Your task to perform on an android device: open app "Grab" (install if not already installed), go to login, and select forgot password Image 0: 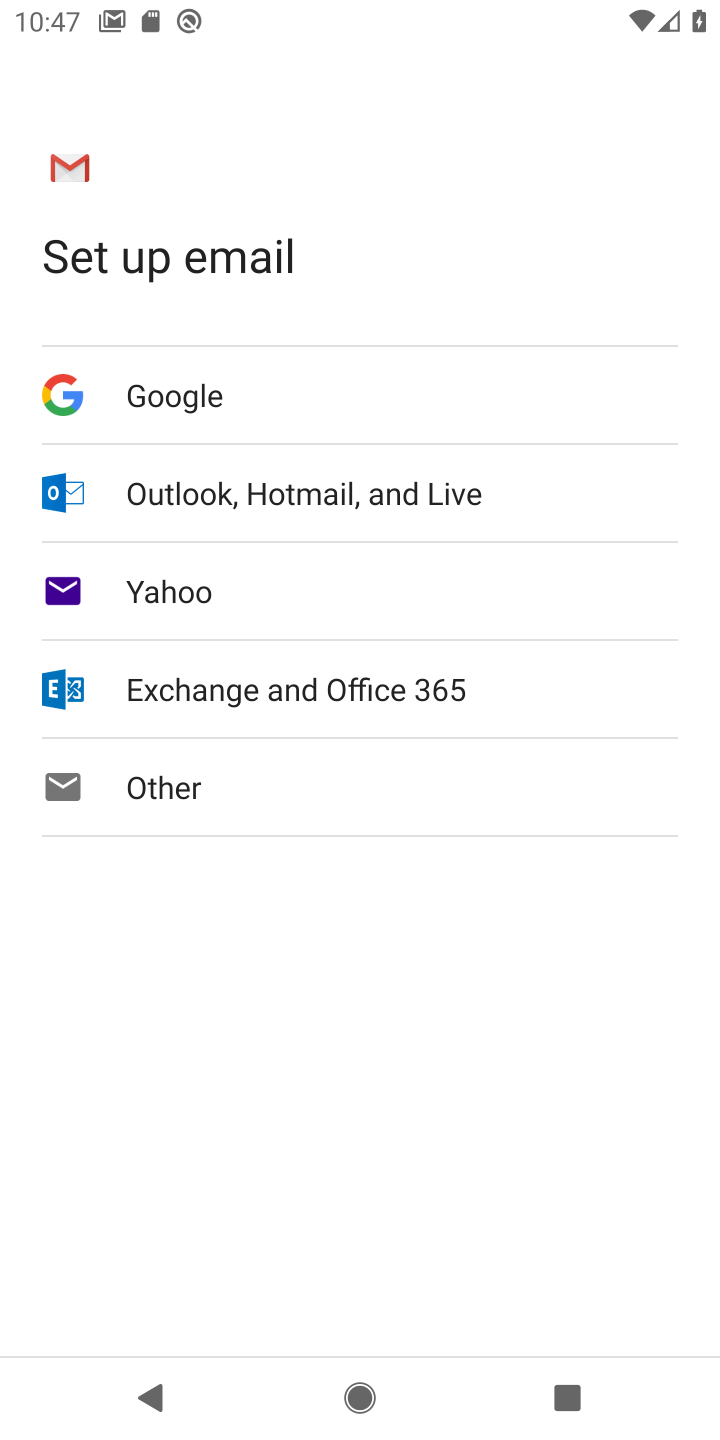
Step 0: press home button
Your task to perform on an android device: open app "Grab" (install if not already installed), go to login, and select forgot password Image 1: 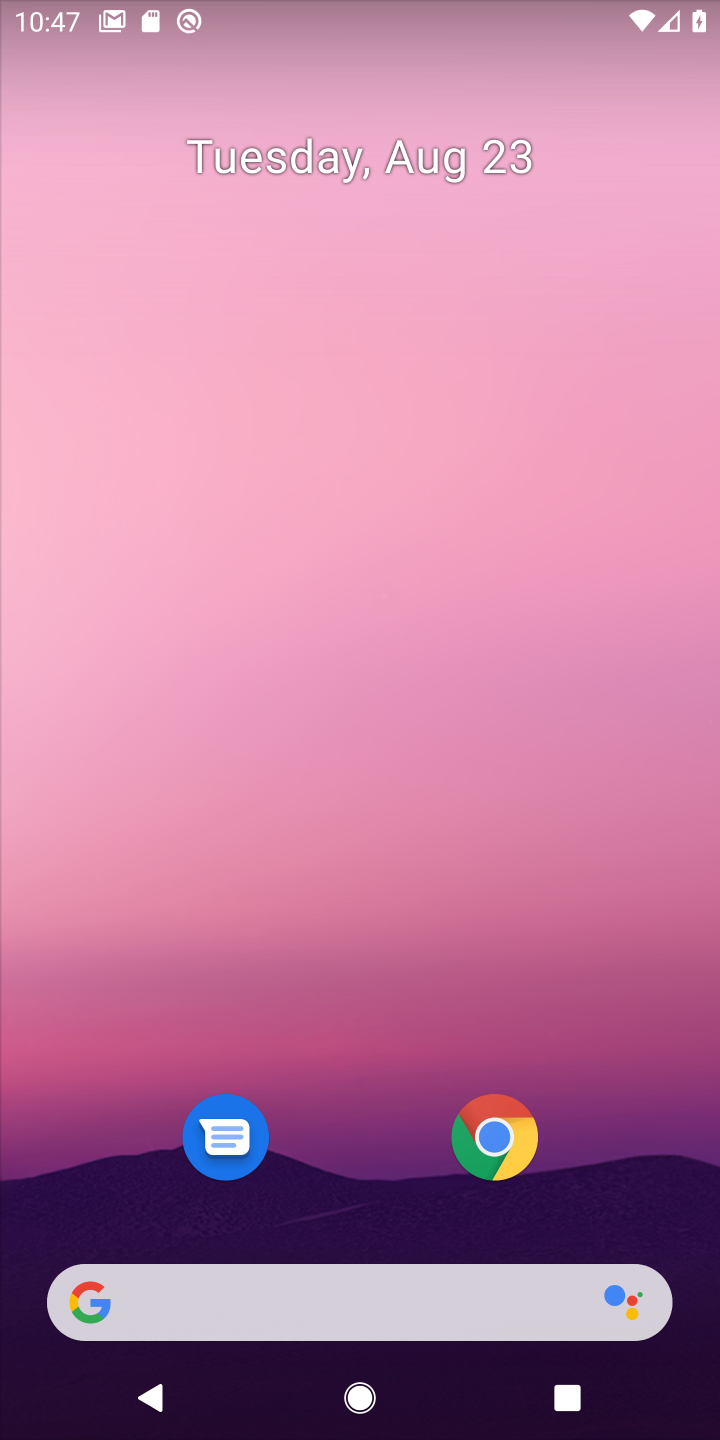
Step 1: drag from (317, 1051) to (339, 9)
Your task to perform on an android device: open app "Grab" (install if not already installed), go to login, and select forgot password Image 2: 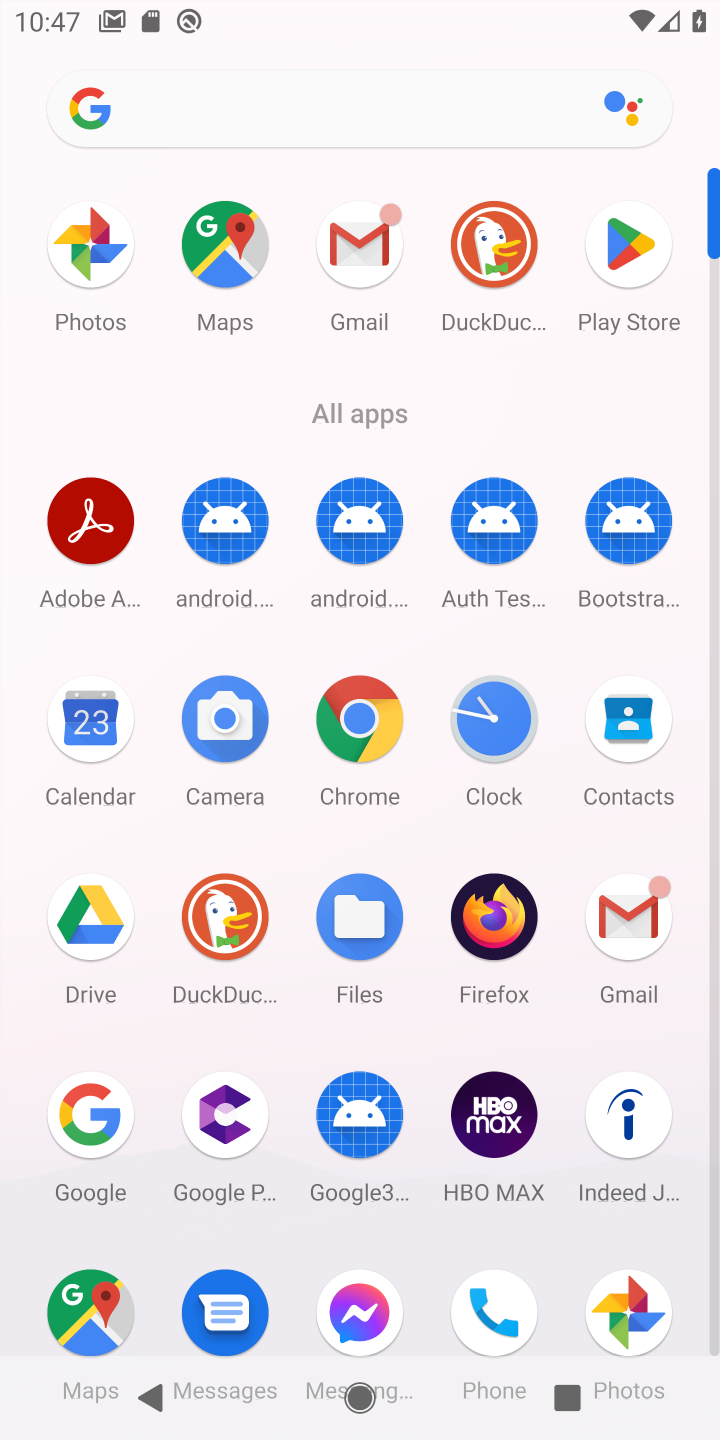
Step 2: click (643, 246)
Your task to perform on an android device: open app "Grab" (install if not already installed), go to login, and select forgot password Image 3: 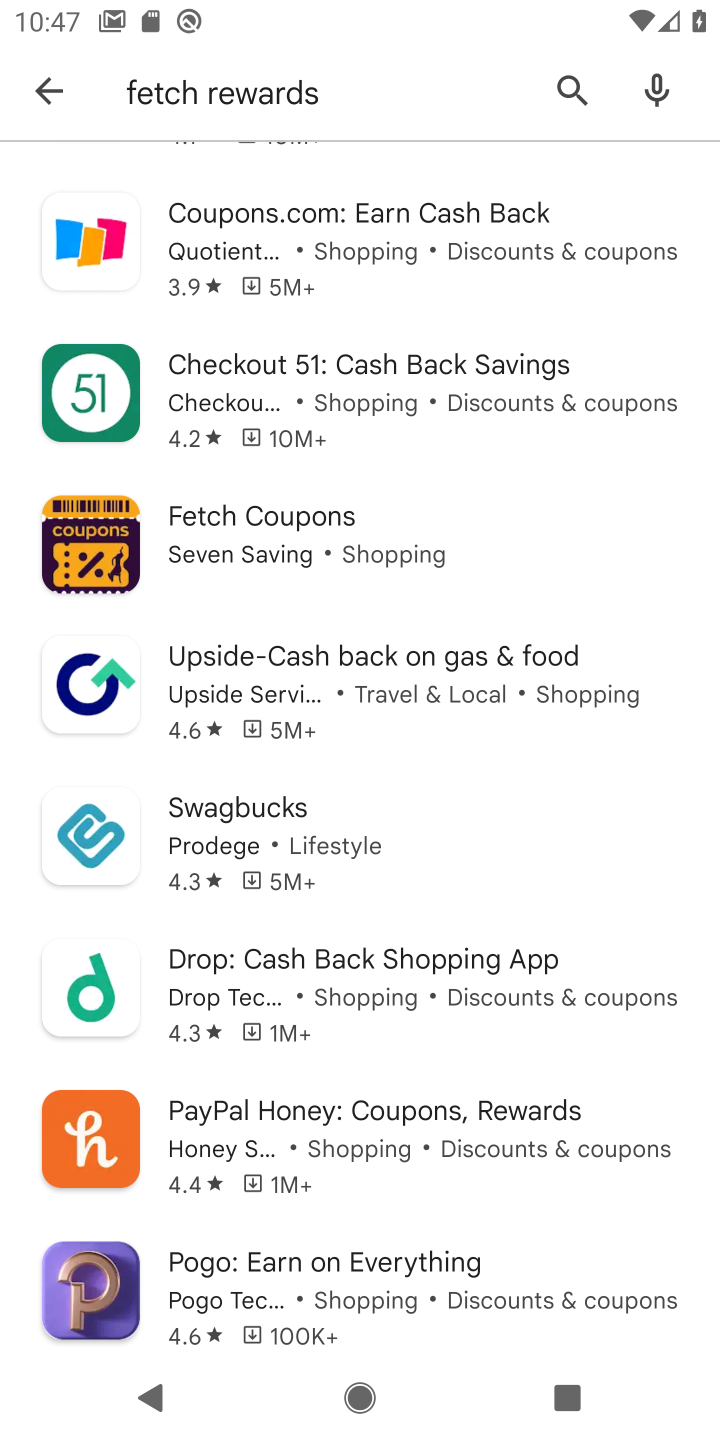
Step 3: click (336, 124)
Your task to perform on an android device: open app "Grab" (install if not already installed), go to login, and select forgot password Image 4: 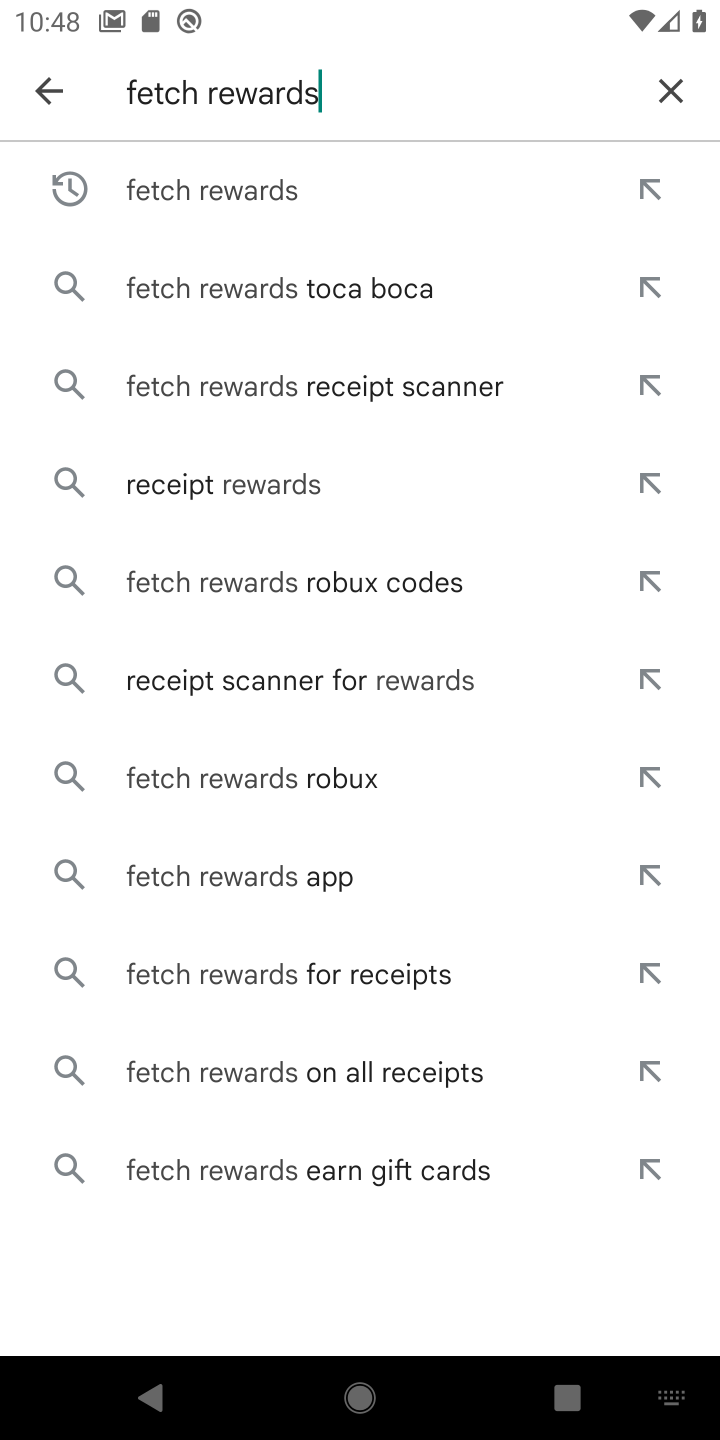
Step 4: click (667, 78)
Your task to perform on an android device: open app "Grab" (install if not already installed), go to login, and select forgot password Image 5: 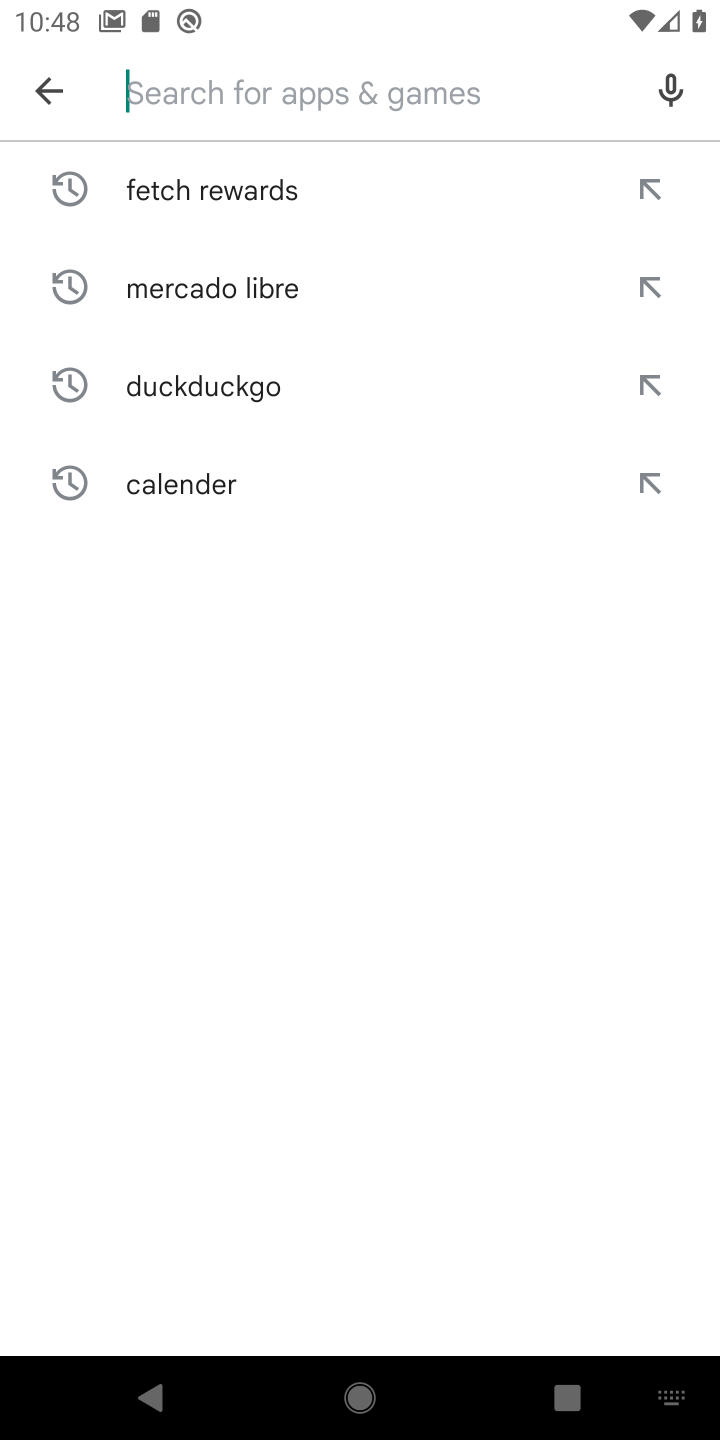
Step 5: type "grab"
Your task to perform on an android device: open app "Grab" (install if not already installed), go to login, and select forgot password Image 6: 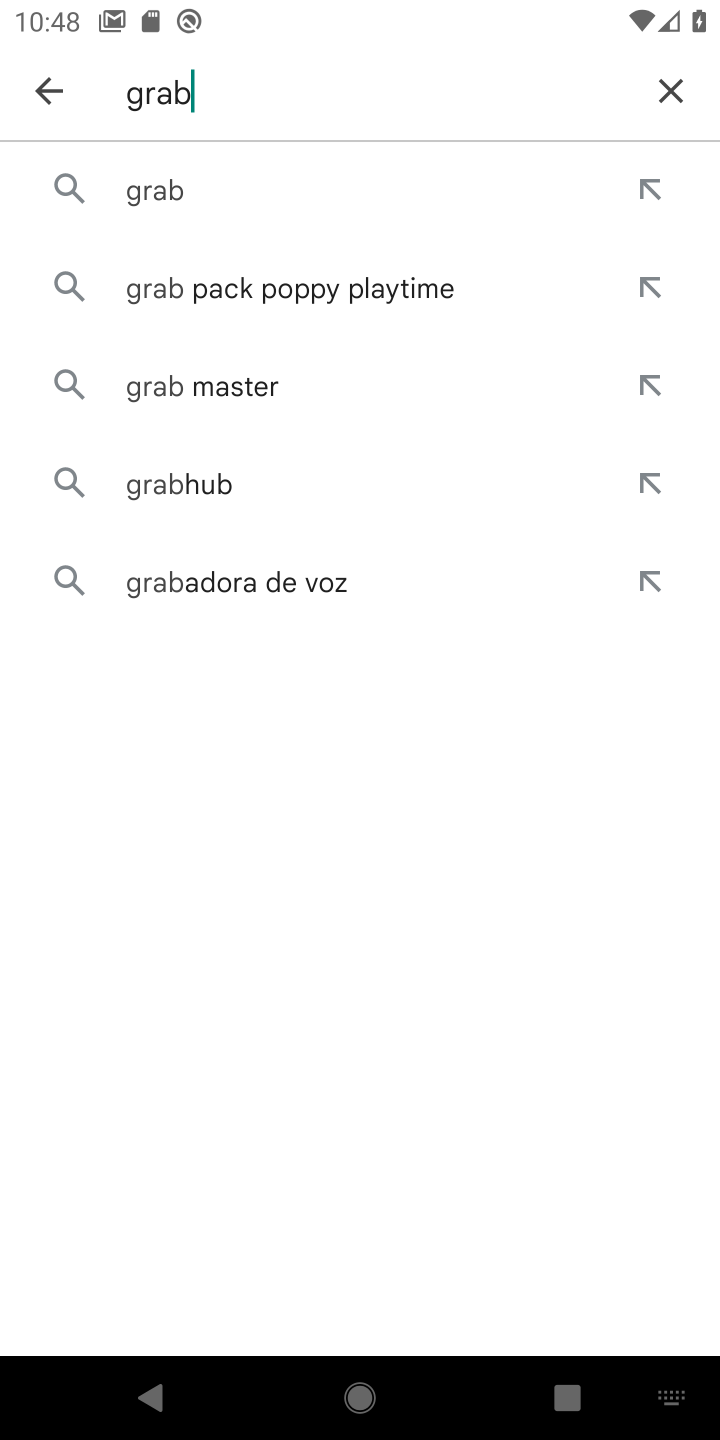
Step 6: click (160, 201)
Your task to perform on an android device: open app "Grab" (install if not already installed), go to login, and select forgot password Image 7: 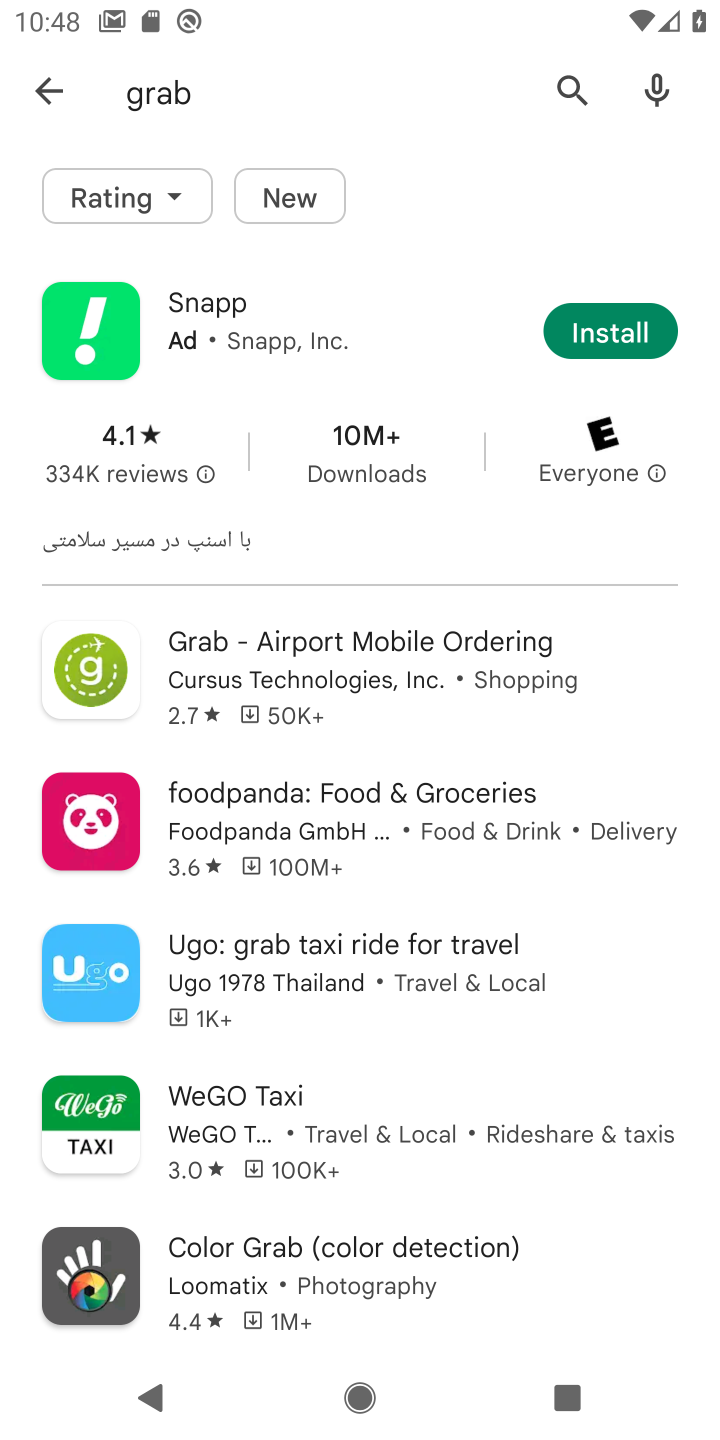
Step 7: click (427, 669)
Your task to perform on an android device: open app "Grab" (install if not already installed), go to login, and select forgot password Image 8: 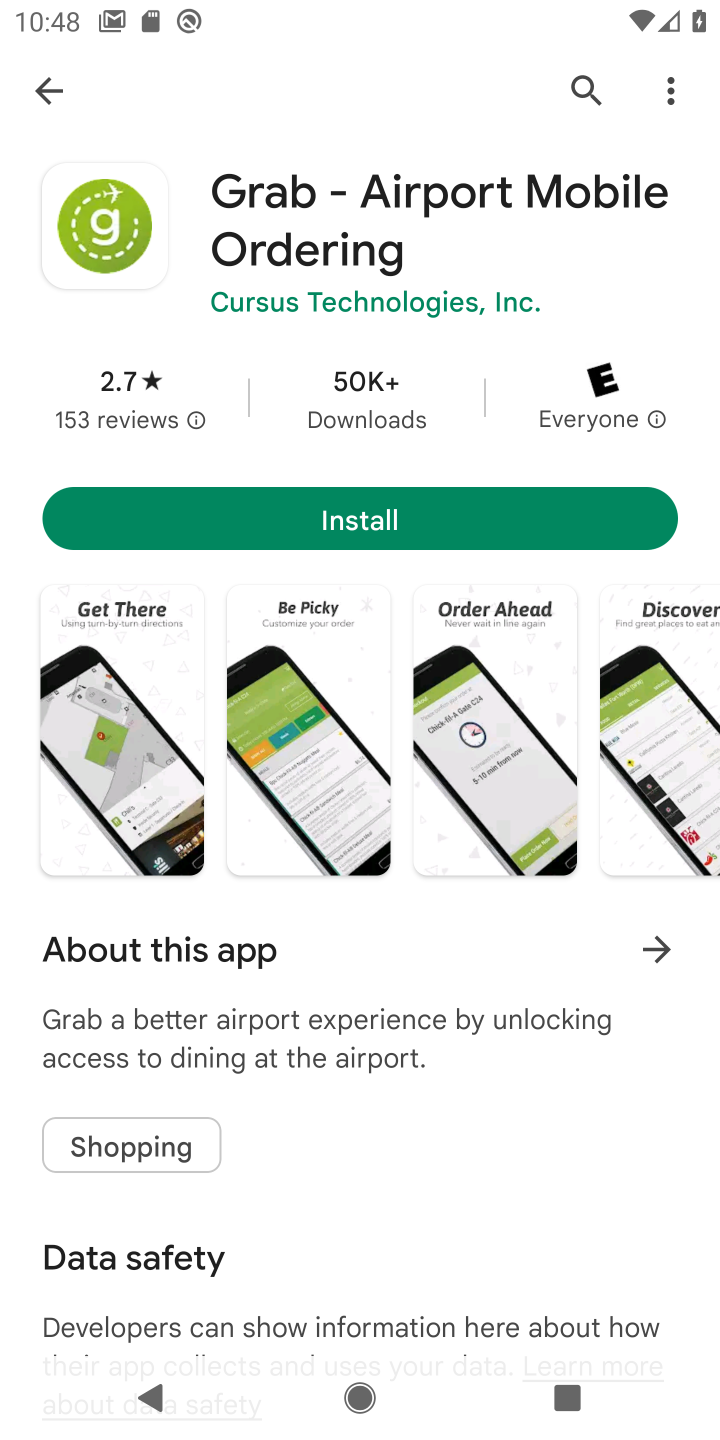
Step 8: click (379, 525)
Your task to perform on an android device: open app "Grab" (install if not already installed), go to login, and select forgot password Image 9: 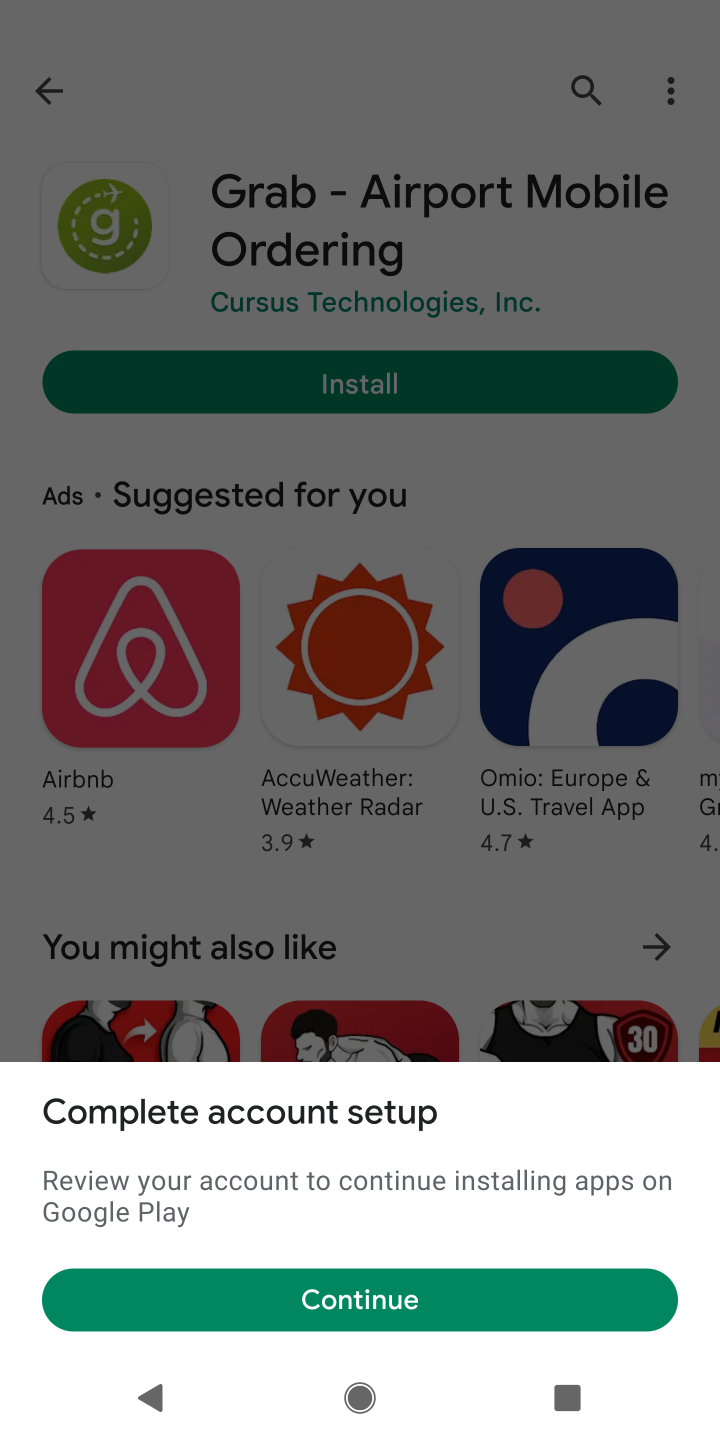
Step 9: click (316, 1302)
Your task to perform on an android device: open app "Grab" (install if not already installed), go to login, and select forgot password Image 10: 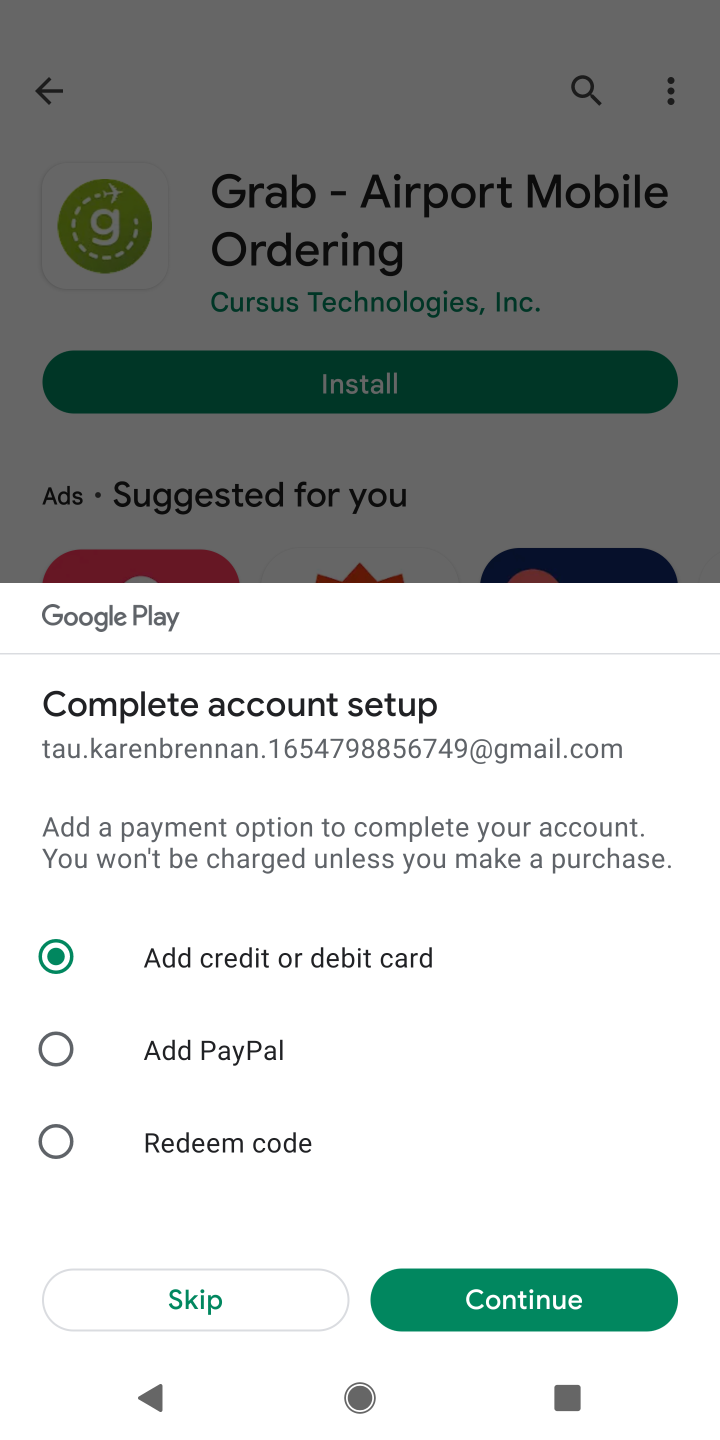
Step 10: click (198, 1298)
Your task to perform on an android device: open app "Grab" (install if not already installed), go to login, and select forgot password Image 11: 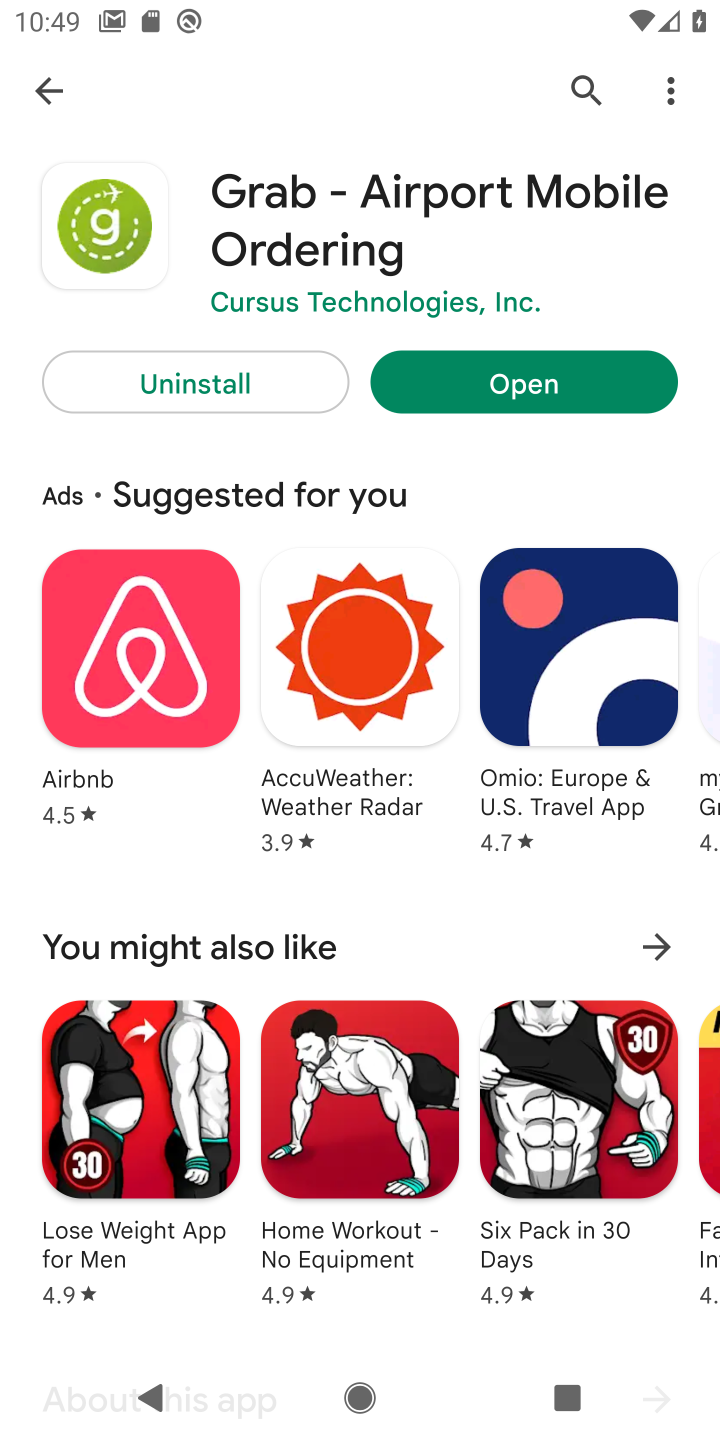
Step 11: click (495, 371)
Your task to perform on an android device: open app "Grab" (install if not already installed), go to login, and select forgot password Image 12: 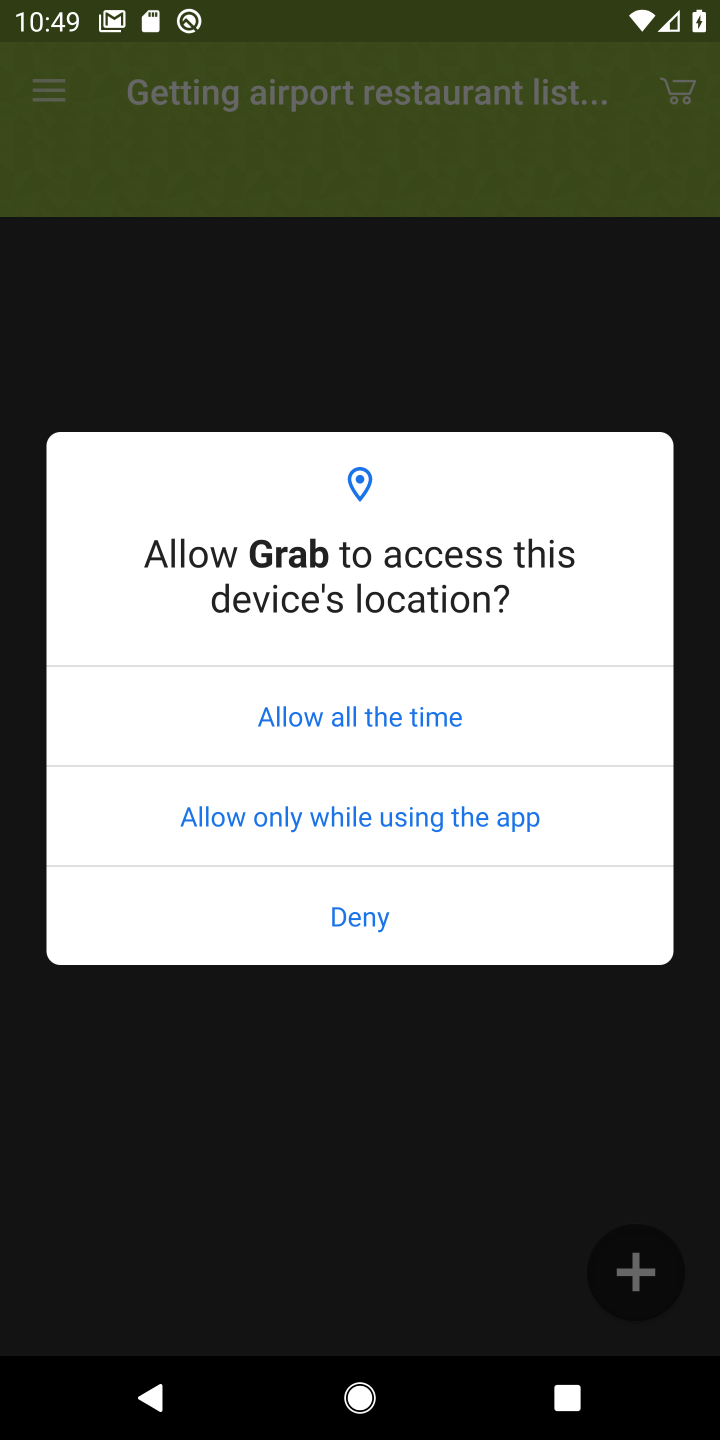
Step 12: click (449, 725)
Your task to perform on an android device: open app "Grab" (install if not already installed), go to login, and select forgot password Image 13: 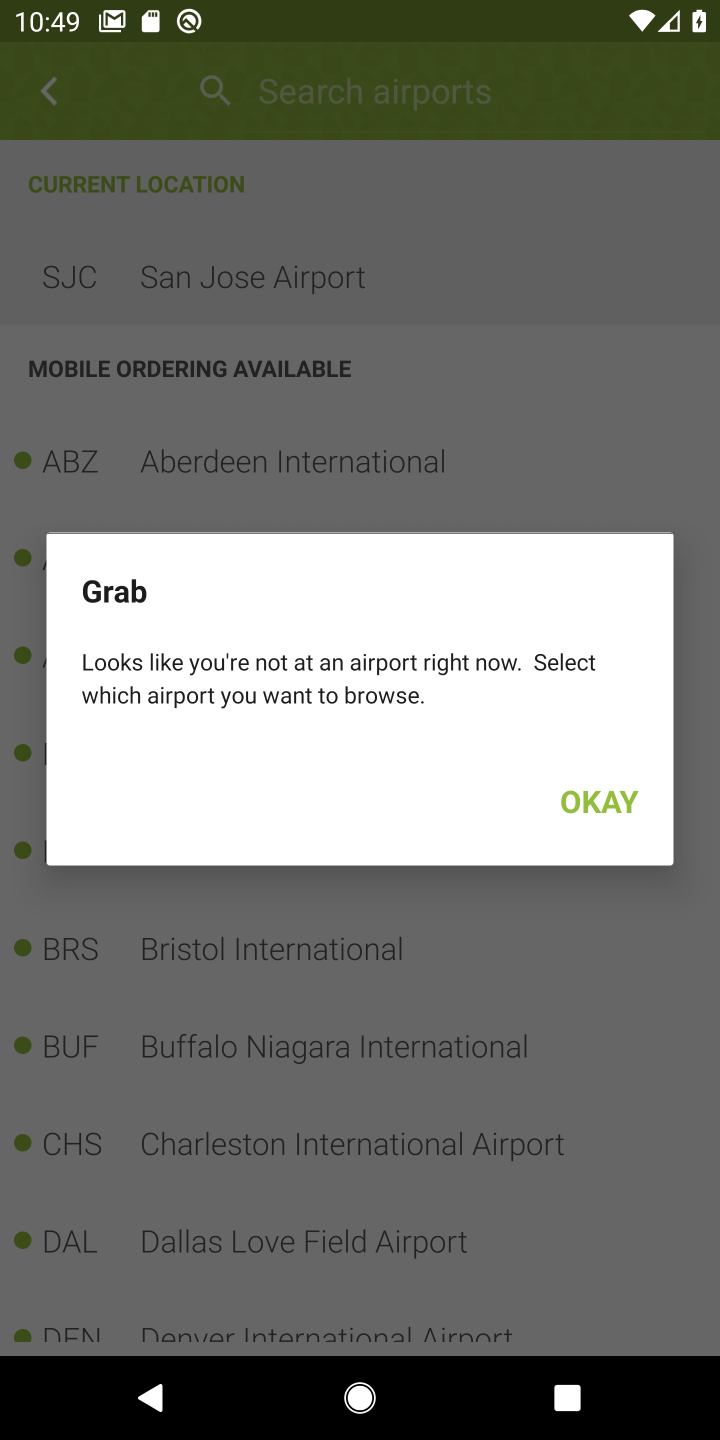
Step 13: click (593, 774)
Your task to perform on an android device: open app "Grab" (install if not already installed), go to login, and select forgot password Image 14: 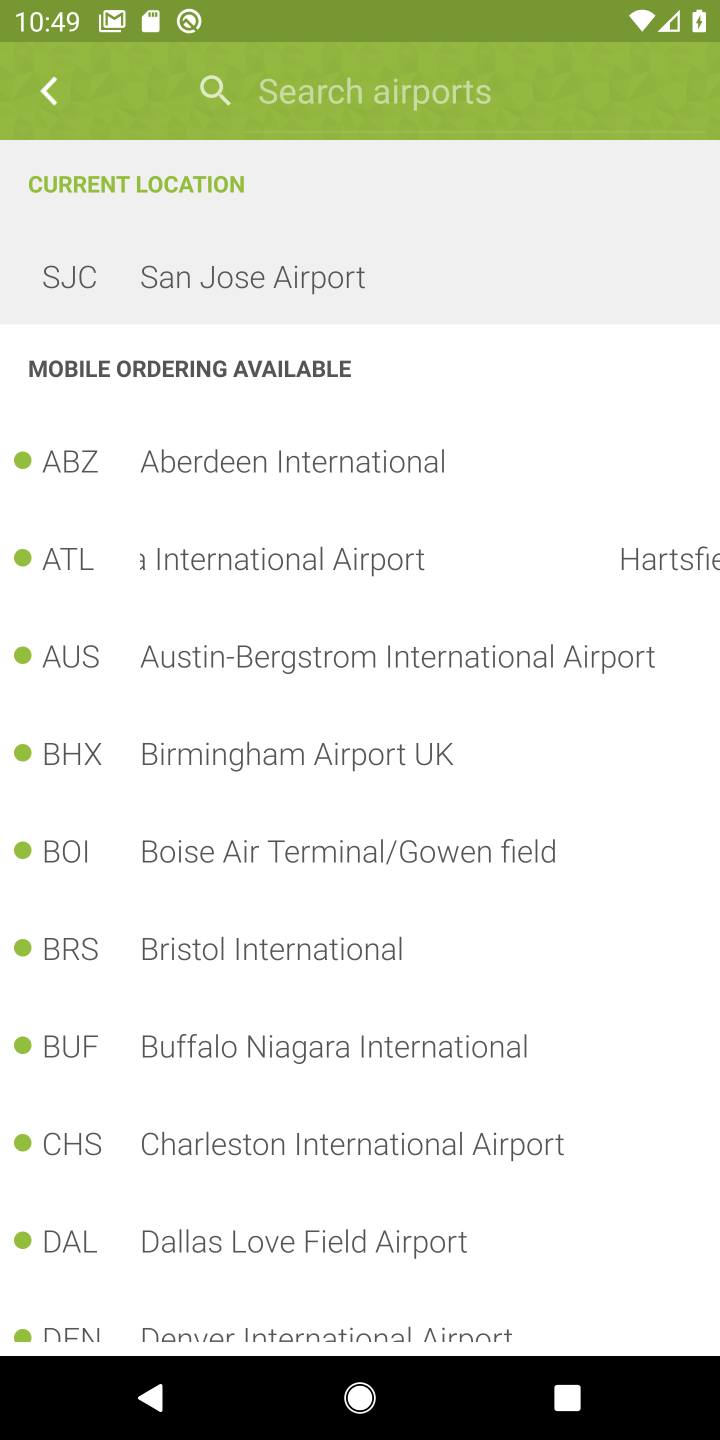
Step 14: task complete